Your task to perform on an android device: change the clock display to show seconds Image 0: 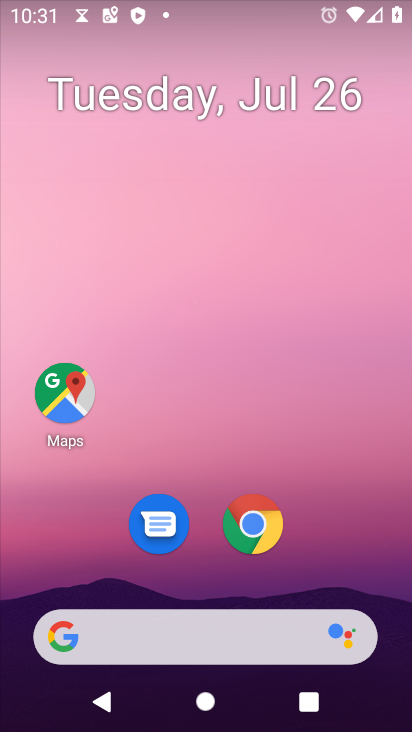
Step 0: press home button
Your task to perform on an android device: change the clock display to show seconds Image 1: 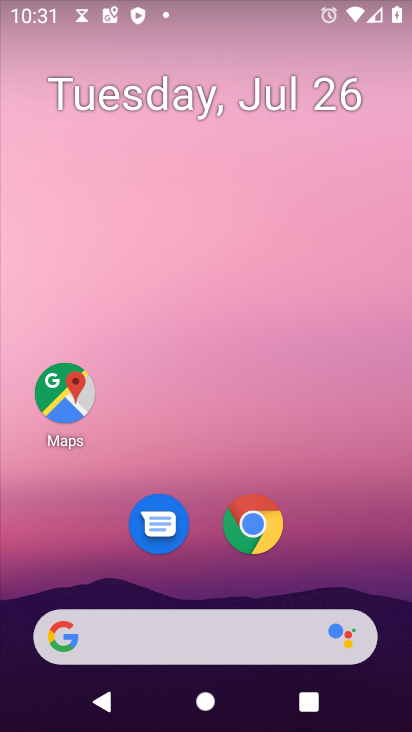
Step 1: drag from (164, 641) to (276, 123)
Your task to perform on an android device: change the clock display to show seconds Image 2: 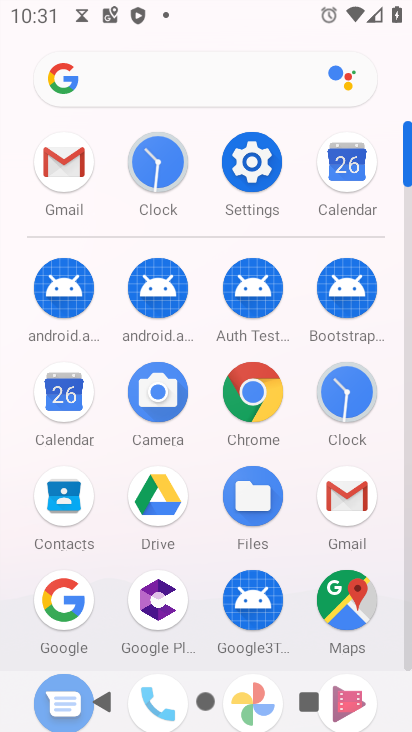
Step 2: click (340, 396)
Your task to perform on an android device: change the clock display to show seconds Image 3: 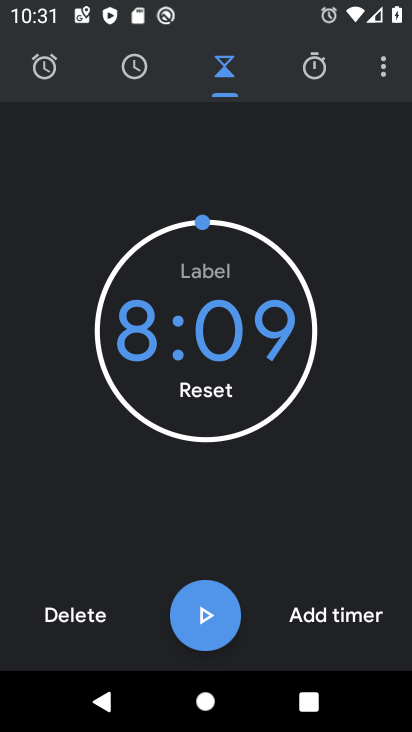
Step 3: click (382, 76)
Your task to perform on an android device: change the clock display to show seconds Image 4: 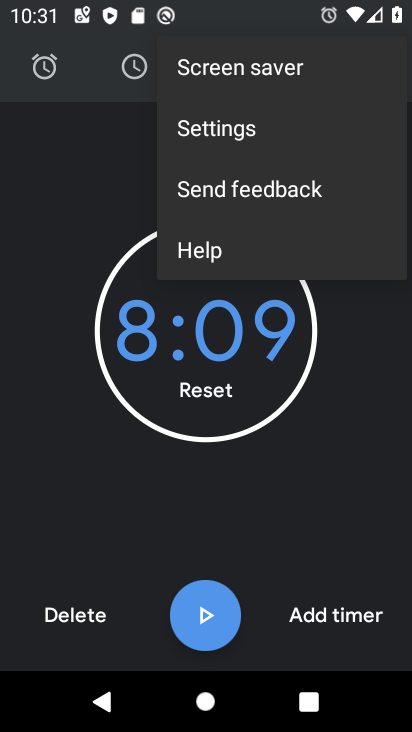
Step 4: click (254, 137)
Your task to perform on an android device: change the clock display to show seconds Image 5: 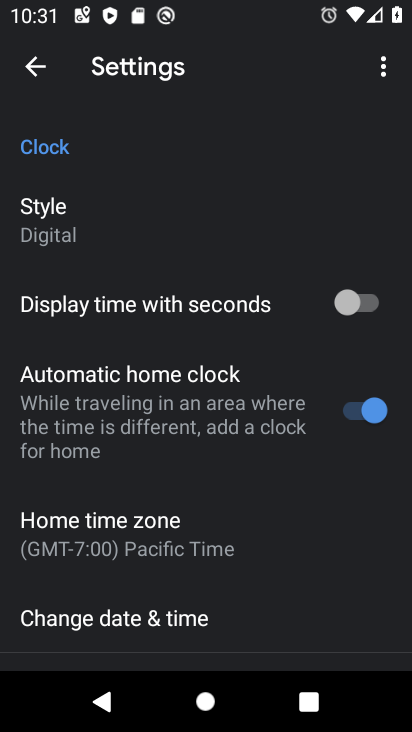
Step 5: click (367, 302)
Your task to perform on an android device: change the clock display to show seconds Image 6: 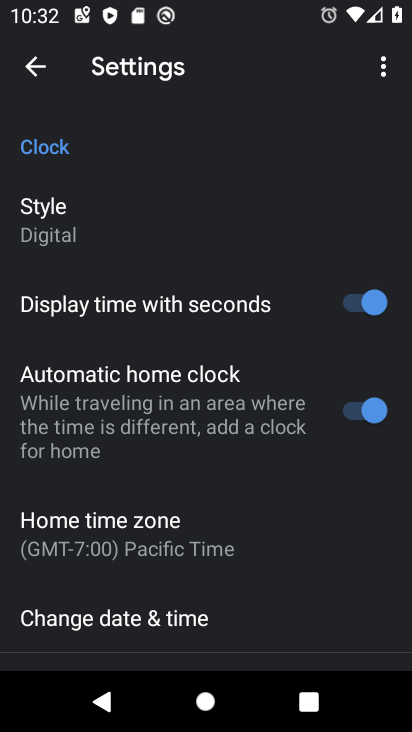
Step 6: task complete